Your task to perform on an android device: open a bookmark in the chrome app Image 0: 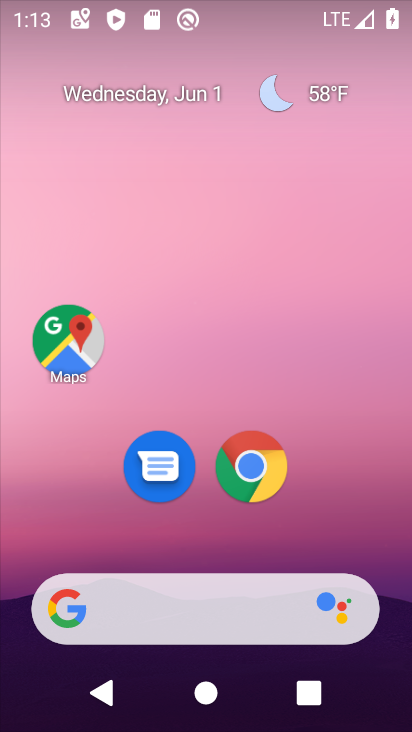
Step 0: drag from (381, 538) to (299, 191)
Your task to perform on an android device: open a bookmark in the chrome app Image 1: 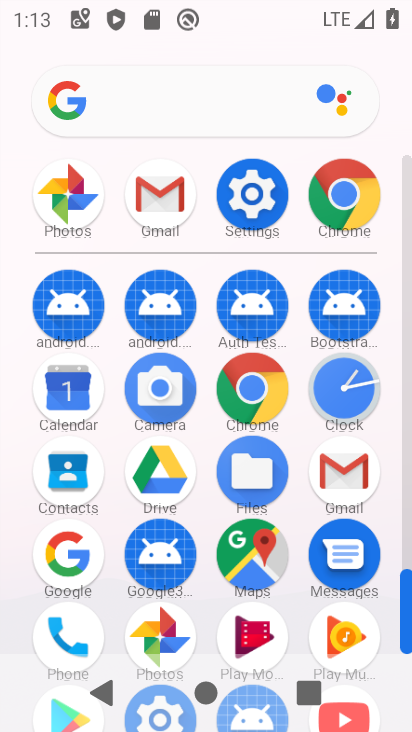
Step 1: click (355, 204)
Your task to perform on an android device: open a bookmark in the chrome app Image 2: 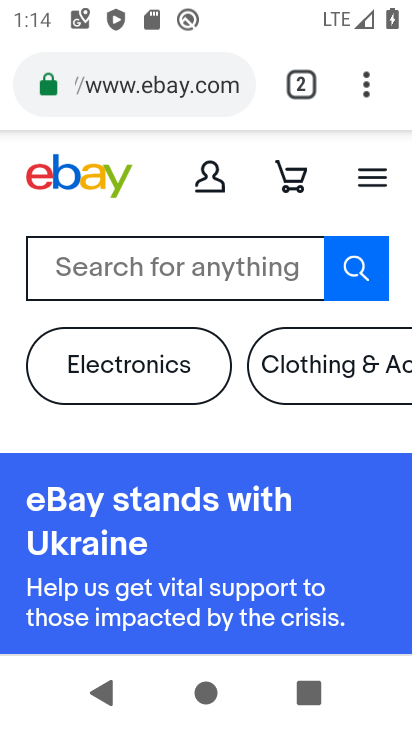
Step 2: click (374, 109)
Your task to perform on an android device: open a bookmark in the chrome app Image 3: 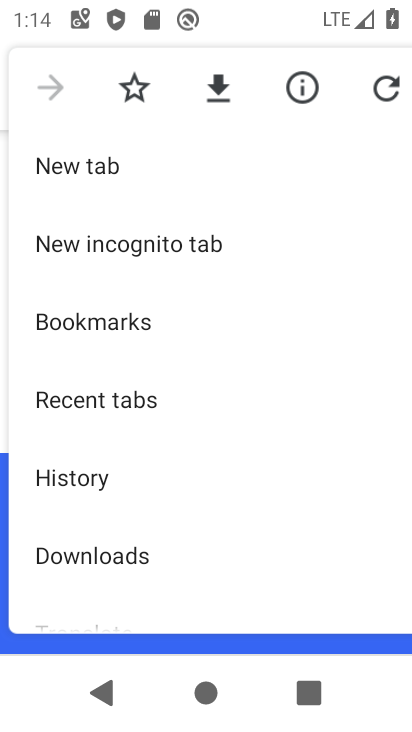
Step 3: click (154, 340)
Your task to perform on an android device: open a bookmark in the chrome app Image 4: 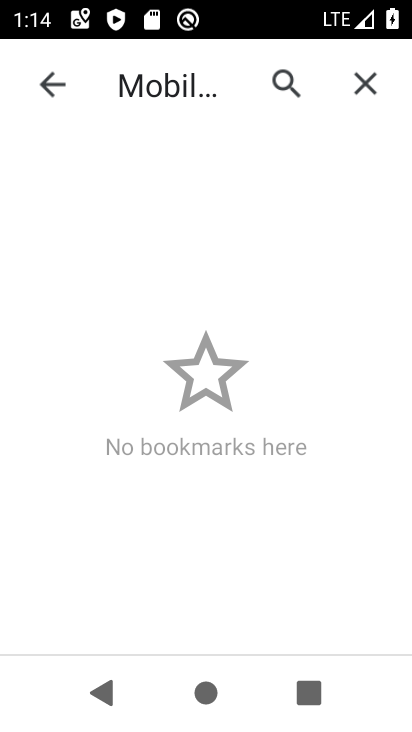
Step 4: task complete